Your task to perform on an android device: uninstall "Firefox Browser" Image 0: 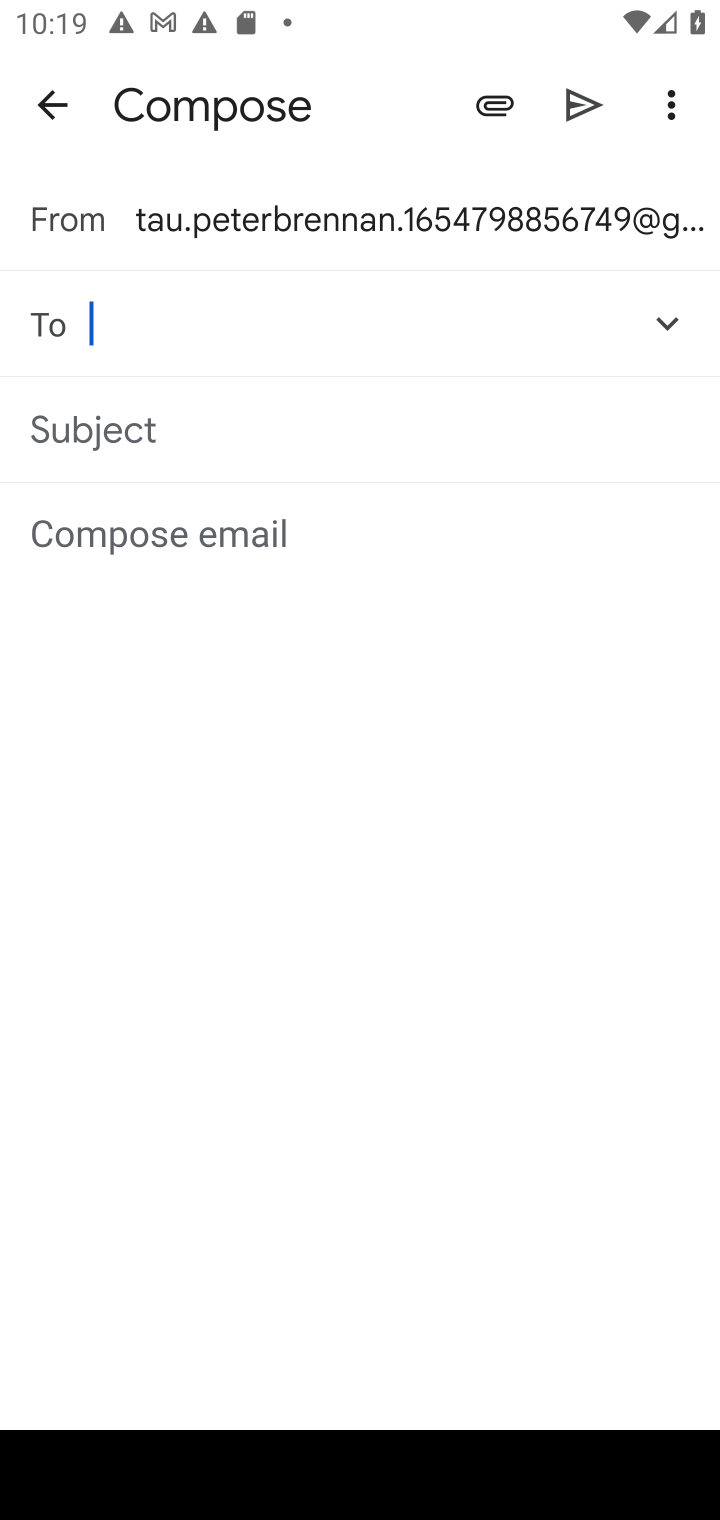
Step 0: press home button
Your task to perform on an android device: uninstall "Firefox Browser" Image 1: 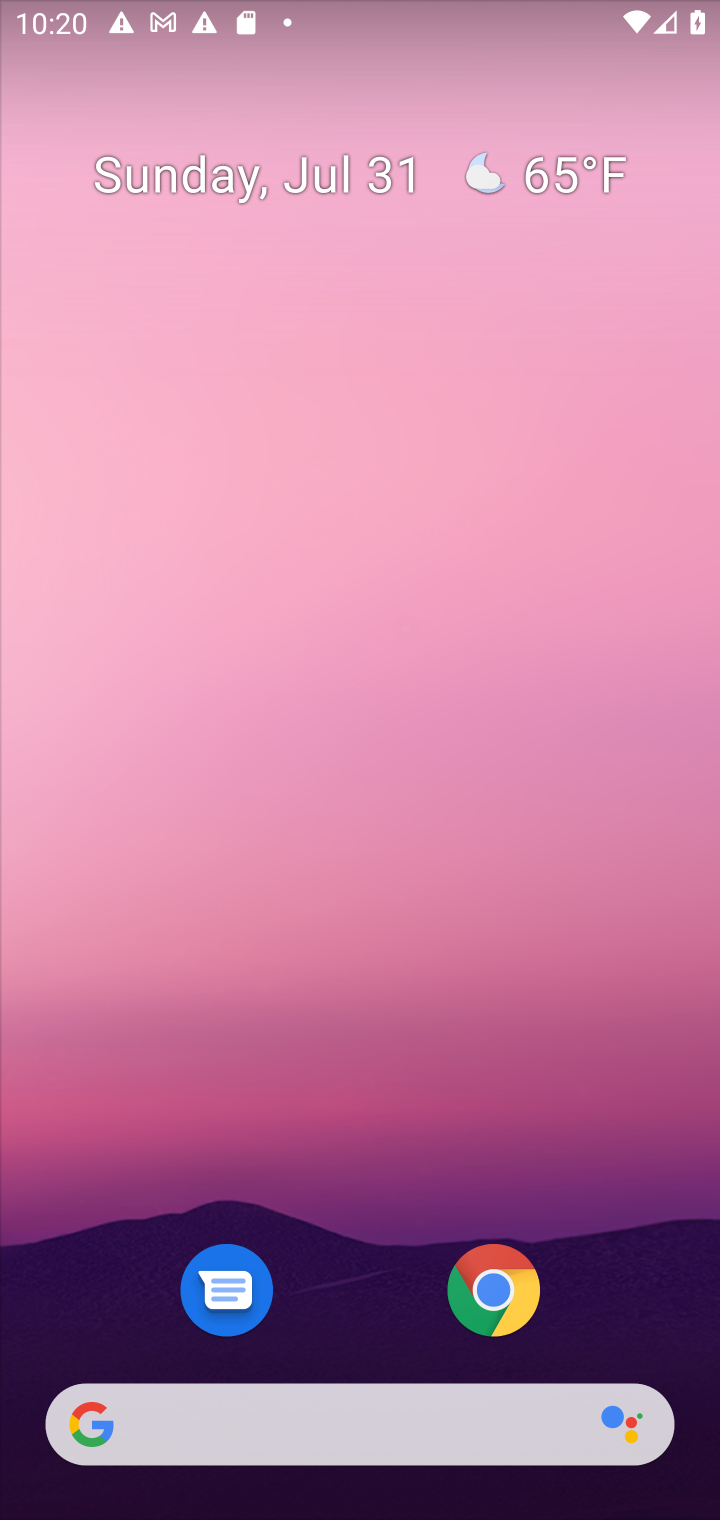
Step 1: drag from (638, 1318) to (571, 140)
Your task to perform on an android device: uninstall "Firefox Browser" Image 2: 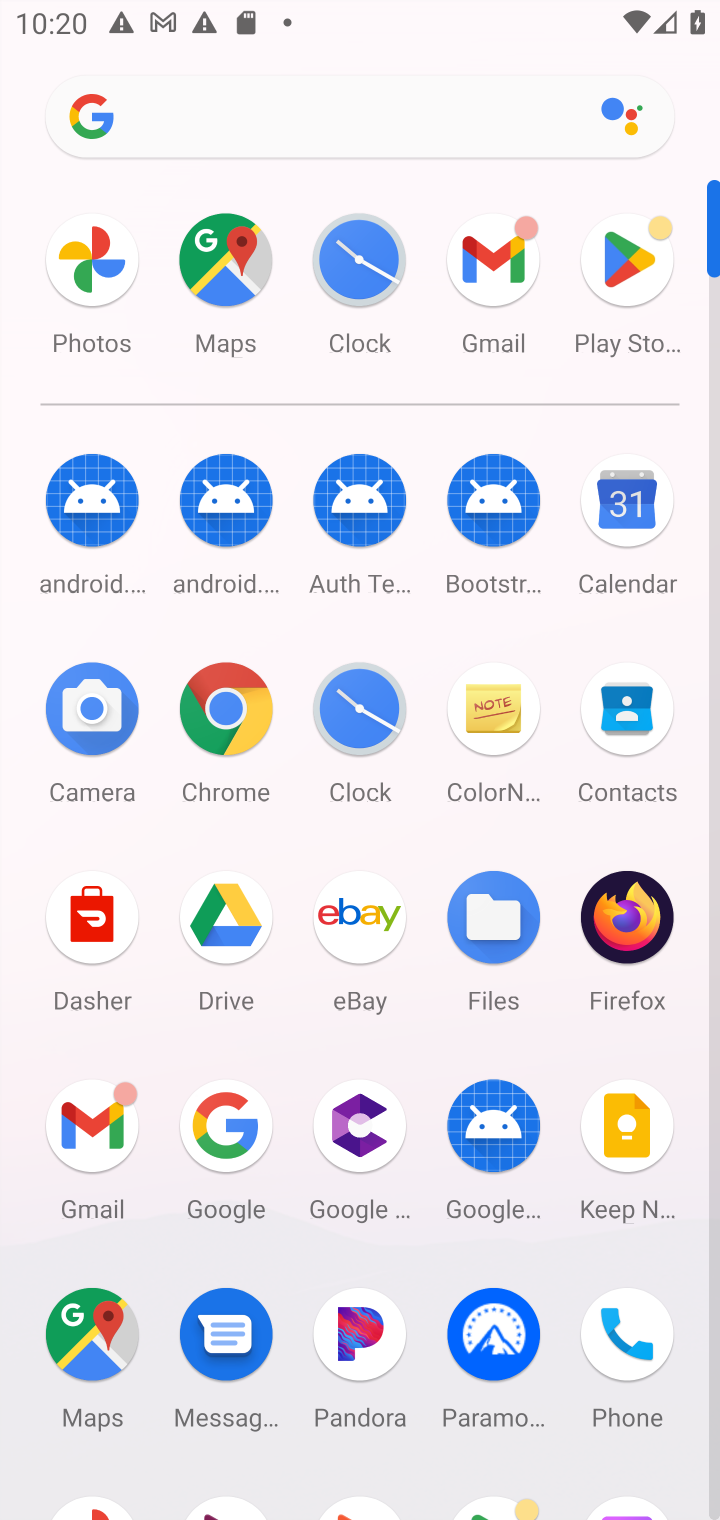
Step 2: click (620, 269)
Your task to perform on an android device: uninstall "Firefox Browser" Image 3: 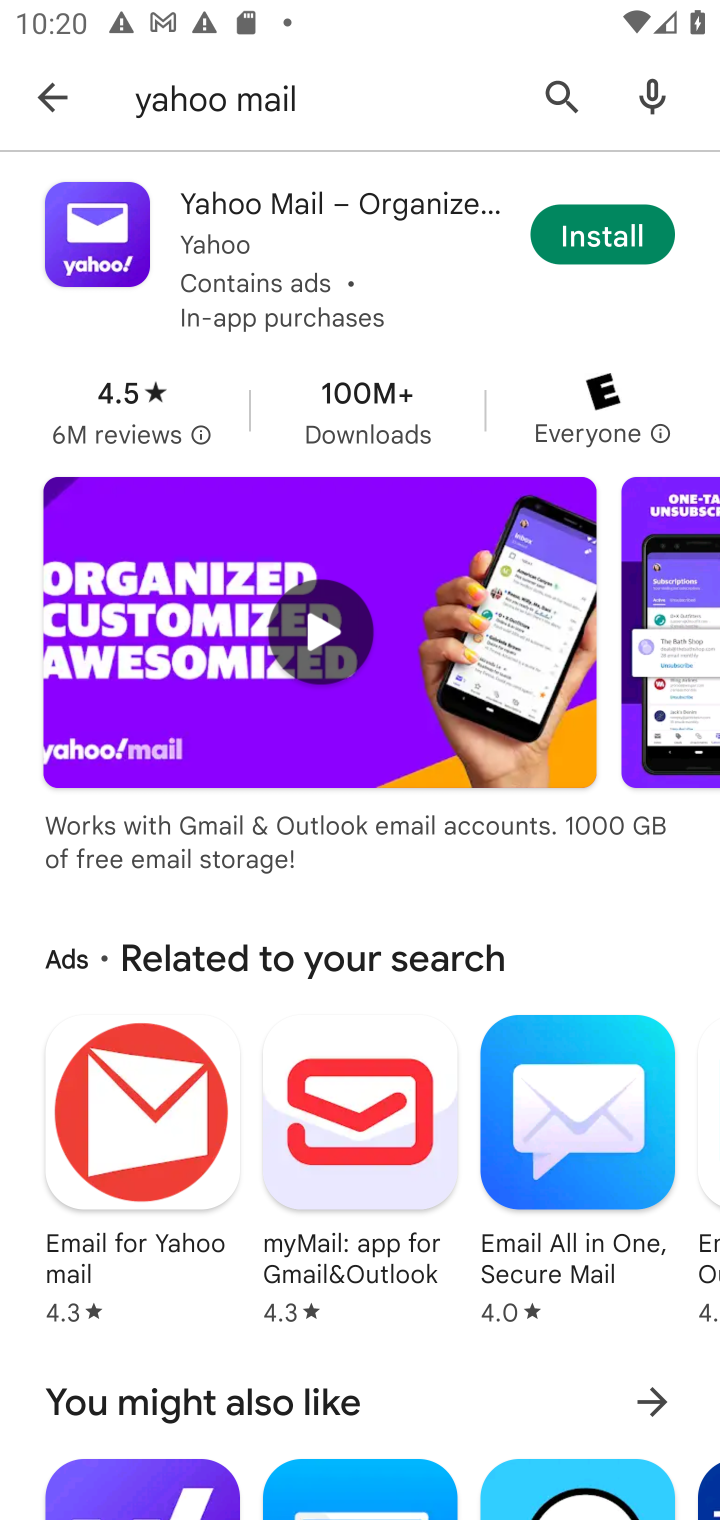
Step 3: click (548, 91)
Your task to perform on an android device: uninstall "Firefox Browser" Image 4: 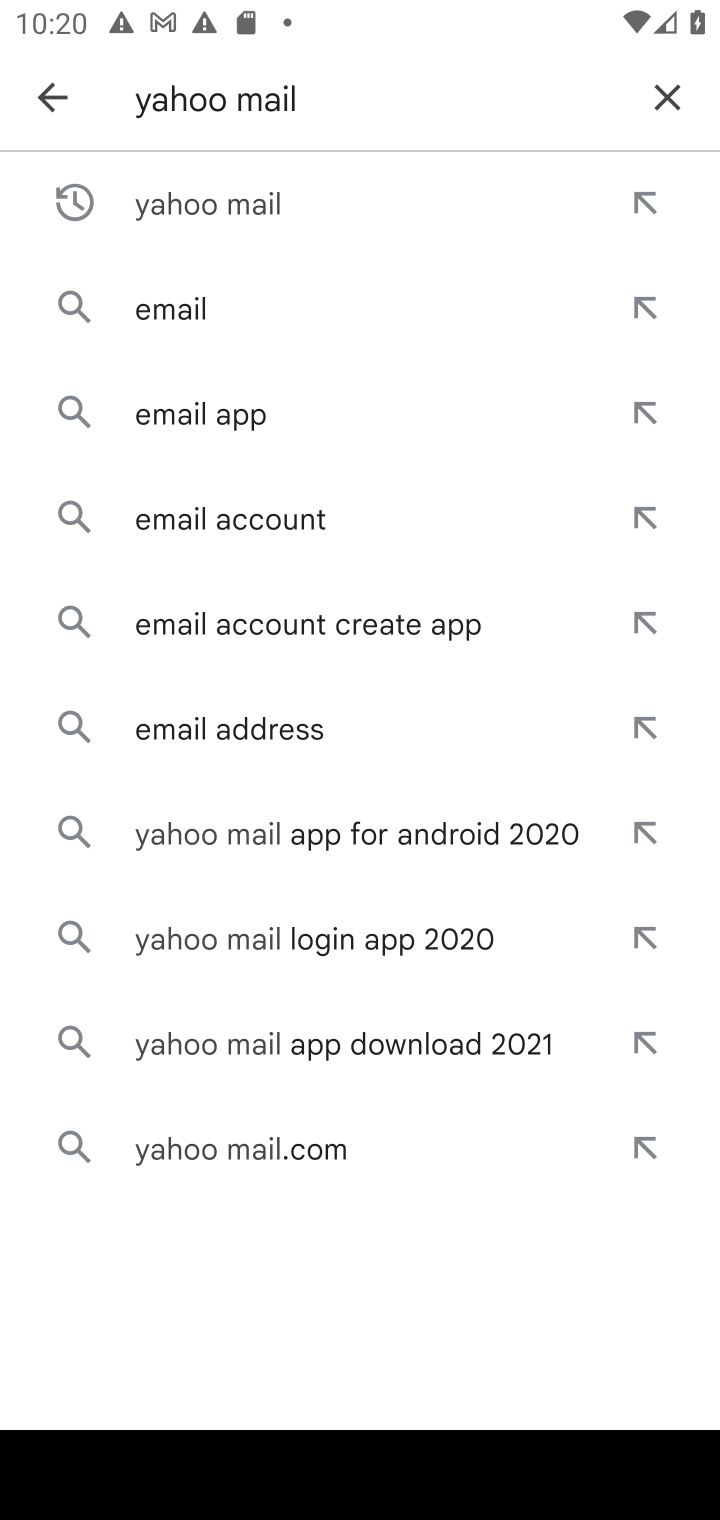
Step 4: click (678, 93)
Your task to perform on an android device: uninstall "Firefox Browser" Image 5: 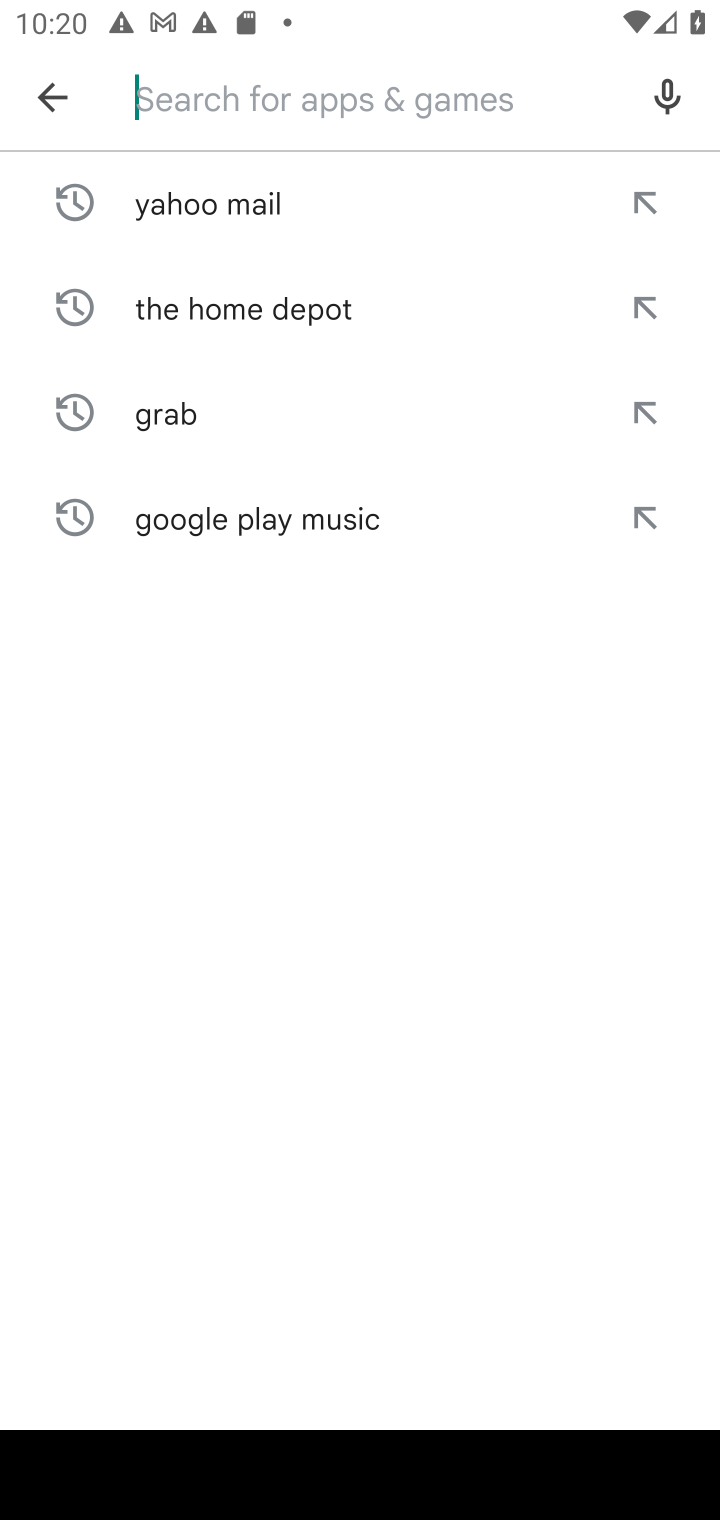
Step 5: type "Firefox Browser"
Your task to perform on an android device: uninstall "Firefox Browser" Image 6: 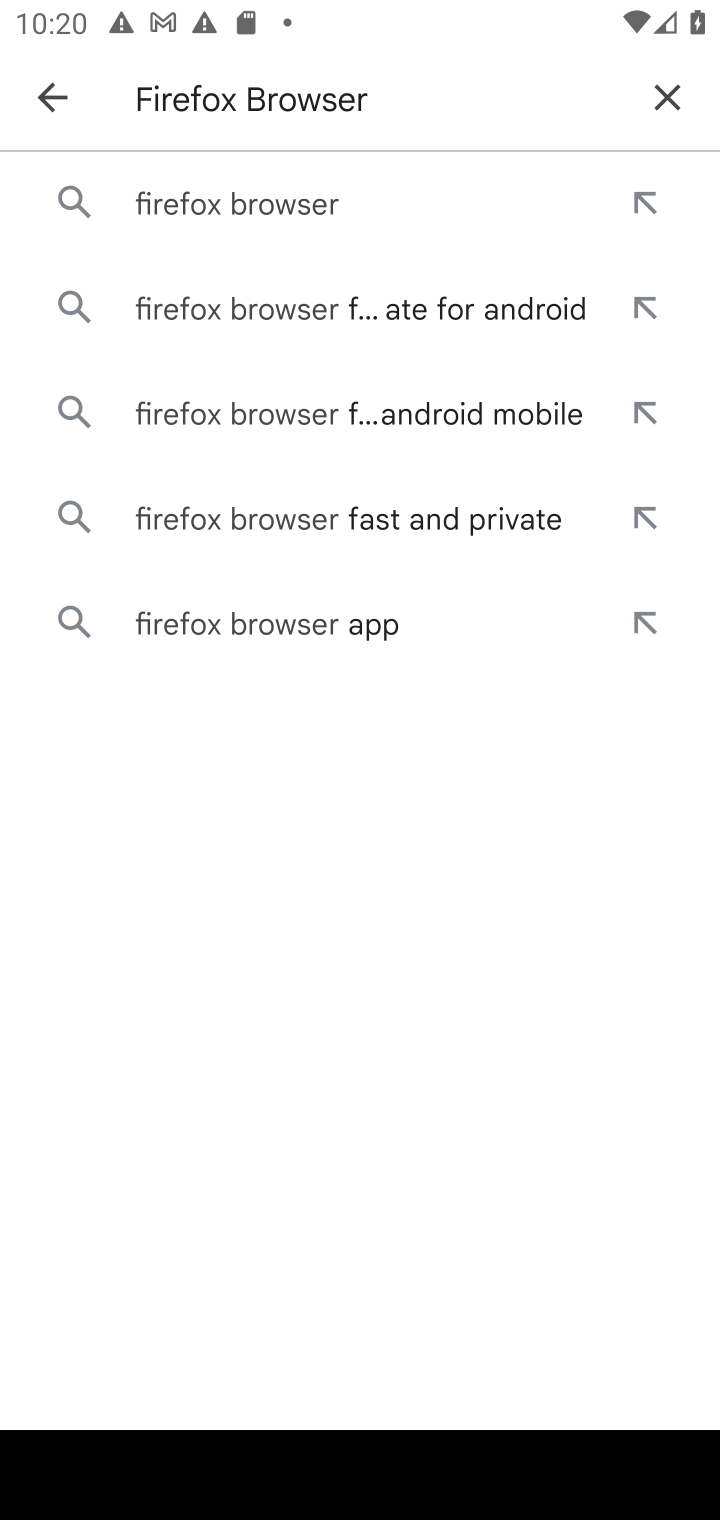
Step 6: click (411, 193)
Your task to perform on an android device: uninstall "Firefox Browser" Image 7: 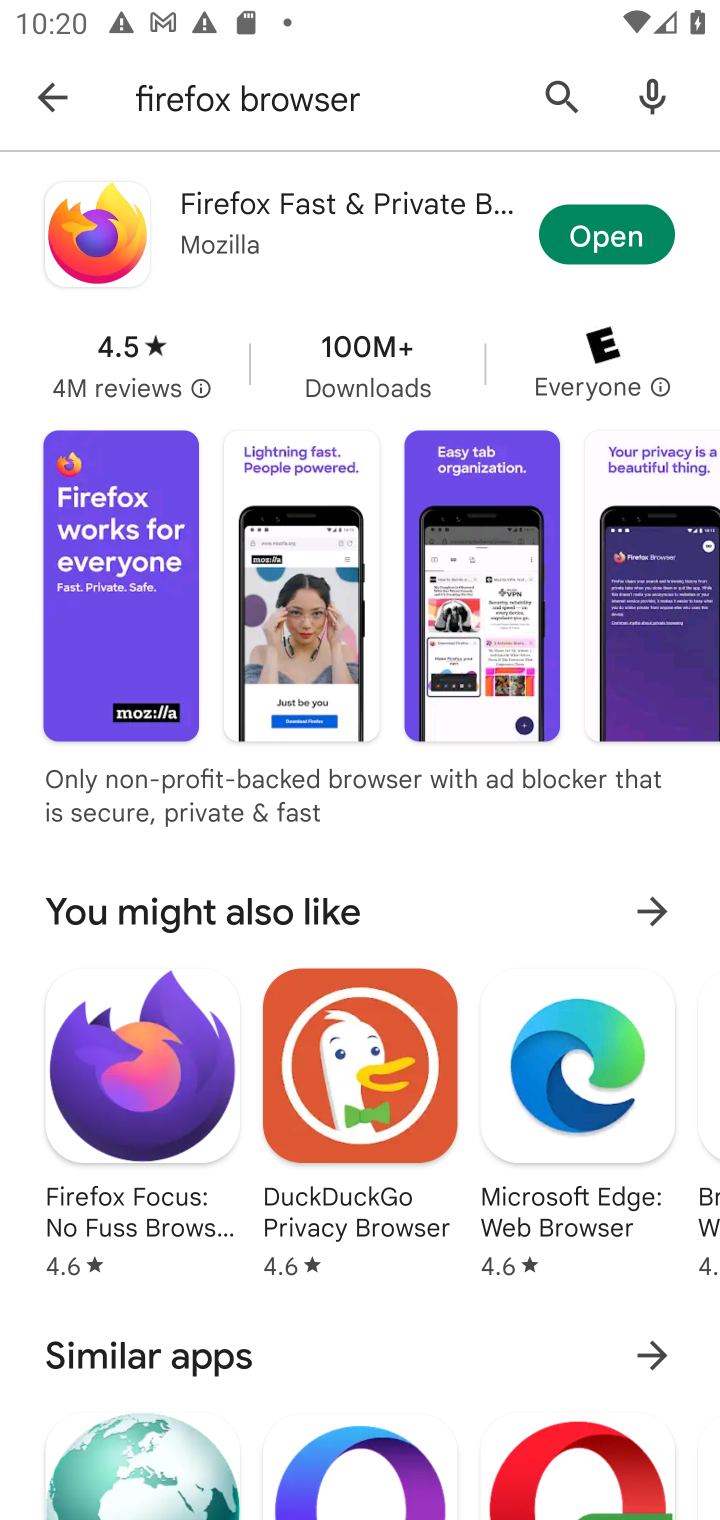
Step 7: task complete